Your task to perform on an android device: install app "Pluto TV - Live TV and Movies" Image 0: 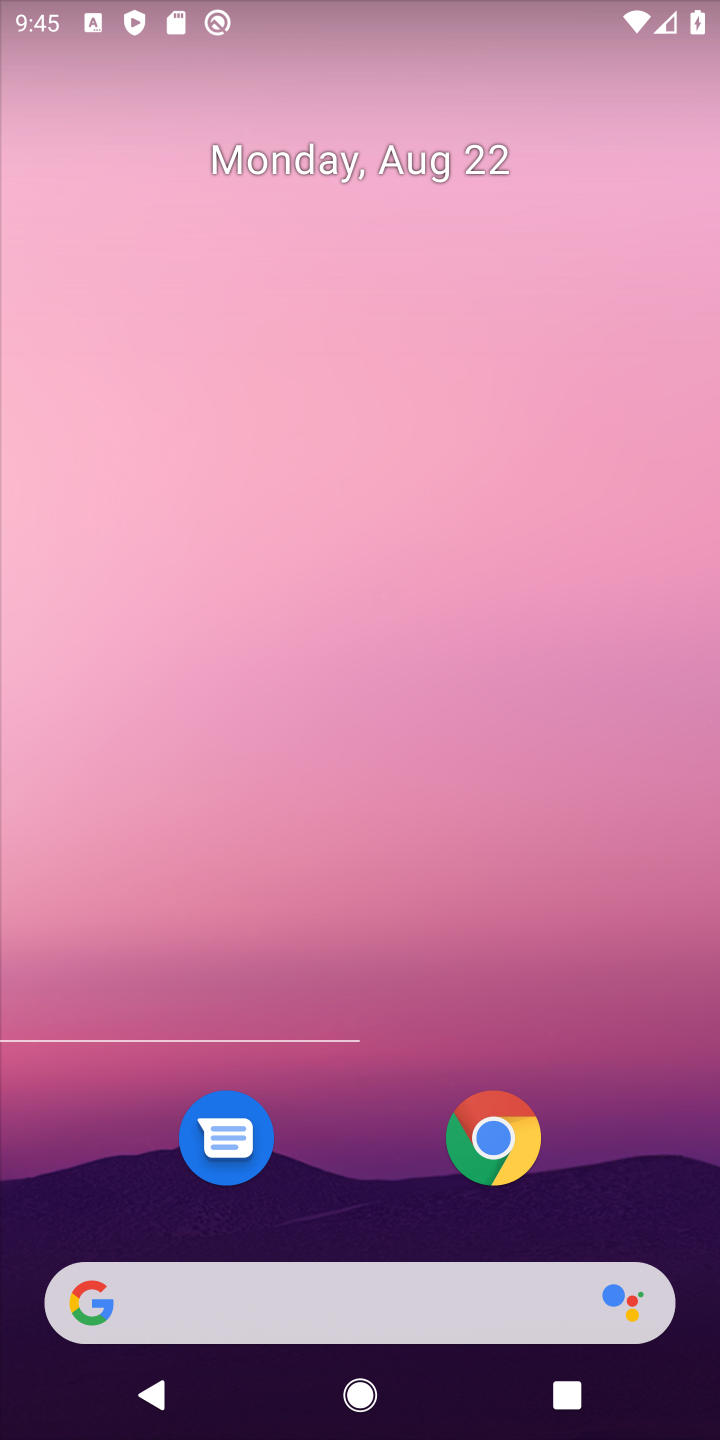
Step 0: press home button
Your task to perform on an android device: install app "Pluto TV - Live TV and Movies" Image 1: 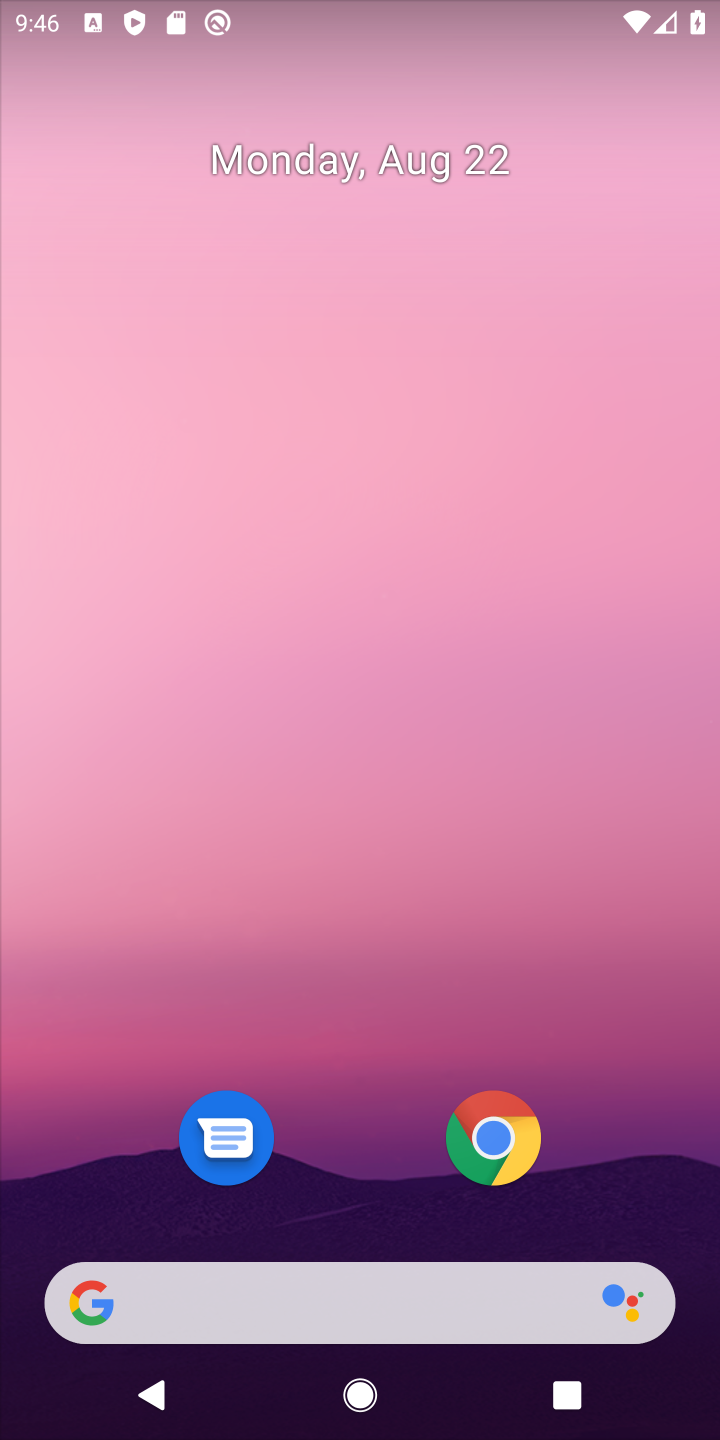
Step 1: drag from (359, 1210) to (391, 94)
Your task to perform on an android device: install app "Pluto TV - Live TV and Movies" Image 2: 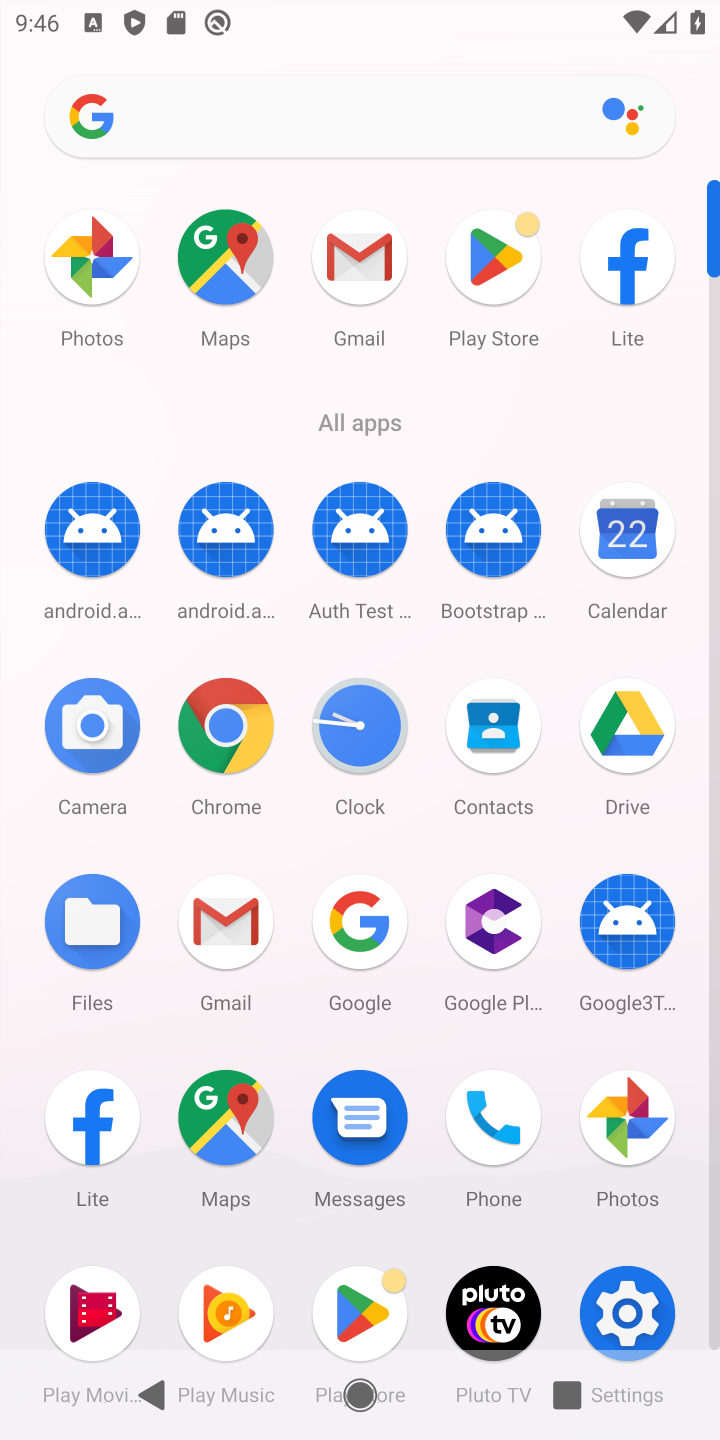
Step 2: click (519, 245)
Your task to perform on an android device: install app "Pluto TV - Live TV and Movies" Image 3: 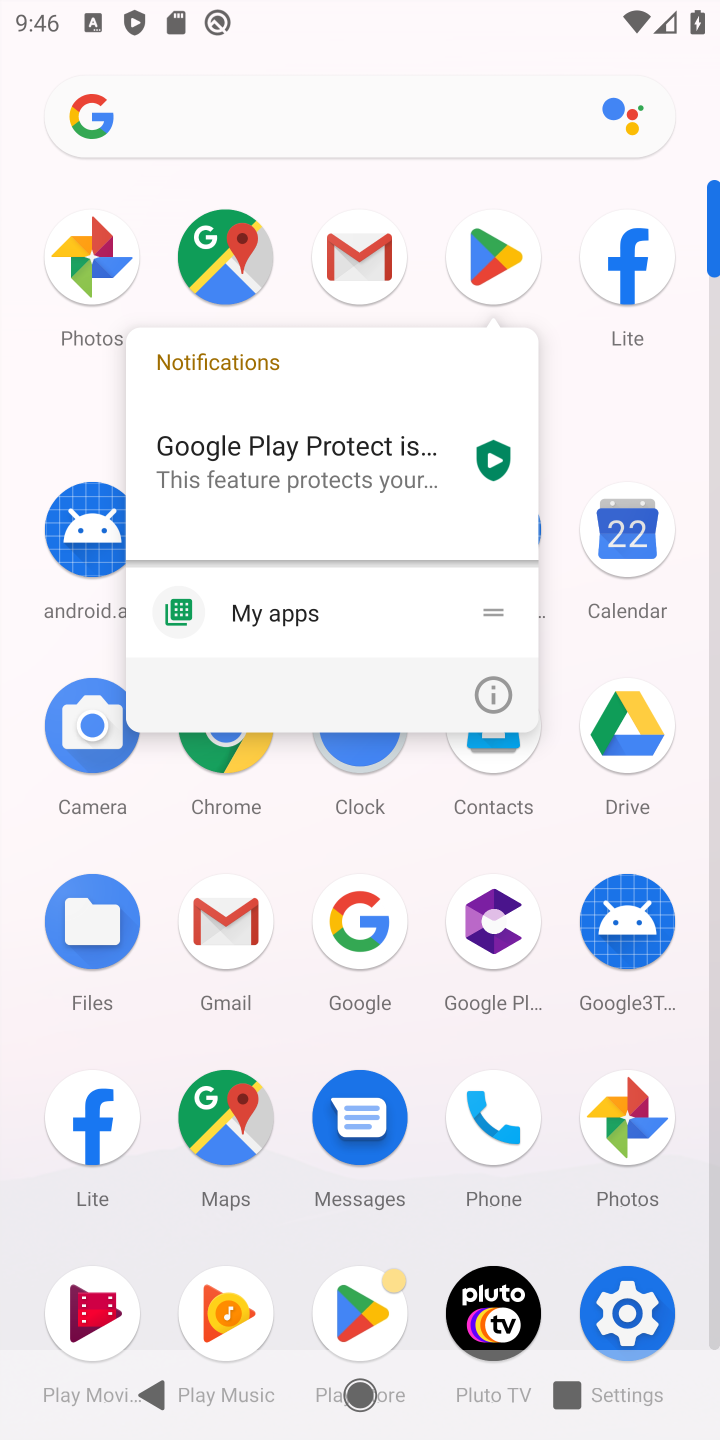
Step 3: click (498, 247)
Your task to perform on an android device: install app "Pluto TV - Live TV and Movies" Image 4: 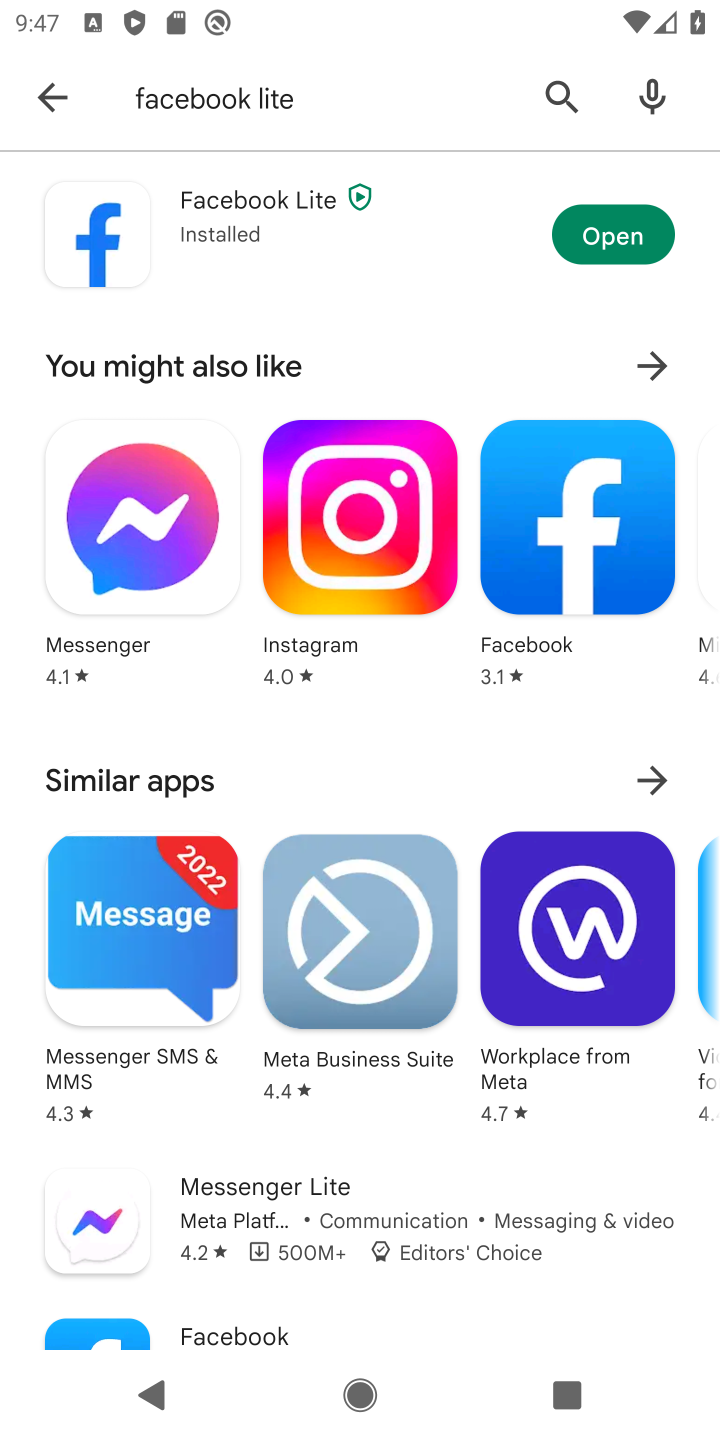
Step 4: click (555, 92)
Your task to perform on an android device: install app "Pluto TV - Live TV and Movies" Image 5: 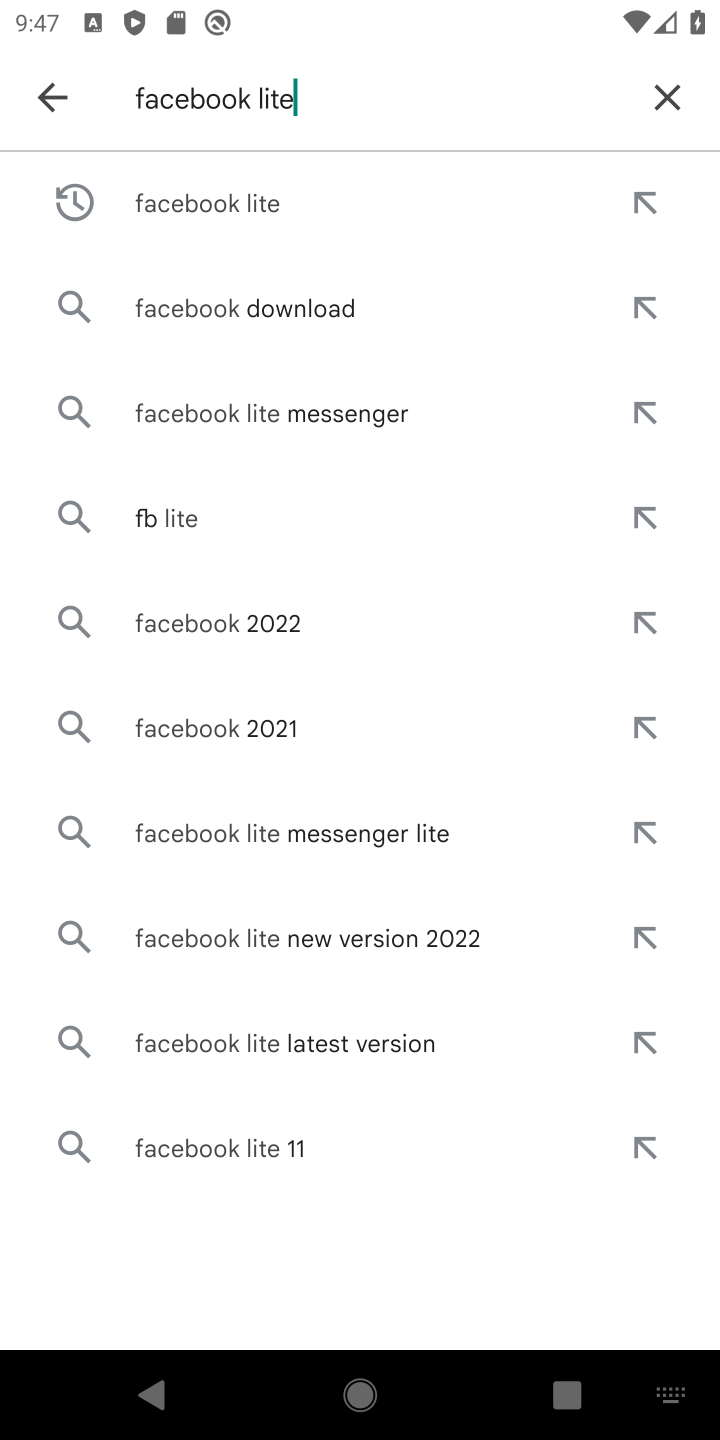
Step 5: click (671, 100)
Your task to perform on an android device: install app "Pluto TV - Live TV and Movies" Image 6: 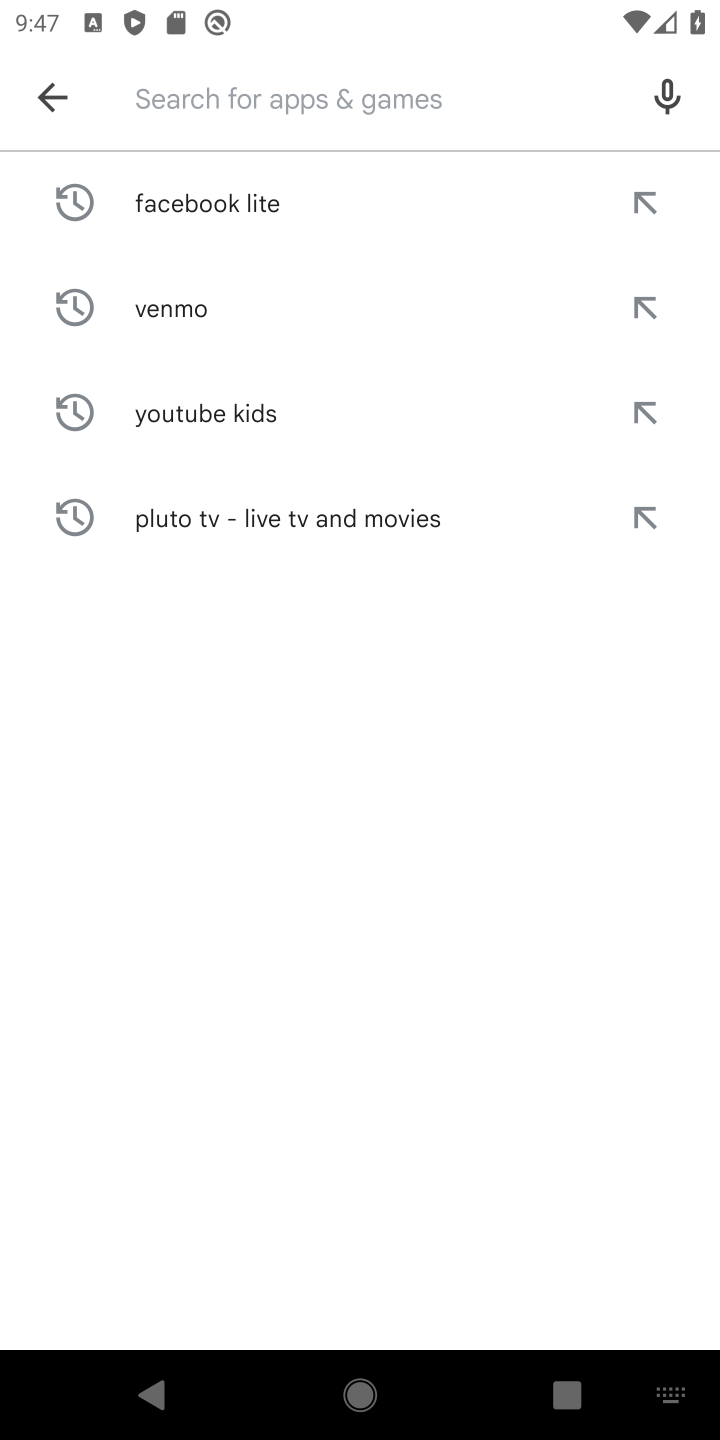
Step 6: type "Pluto TV - Live TV and Movies"
Your task to perform on an android device: install app "Pluto TV - Live TV and Movies" Image 7: 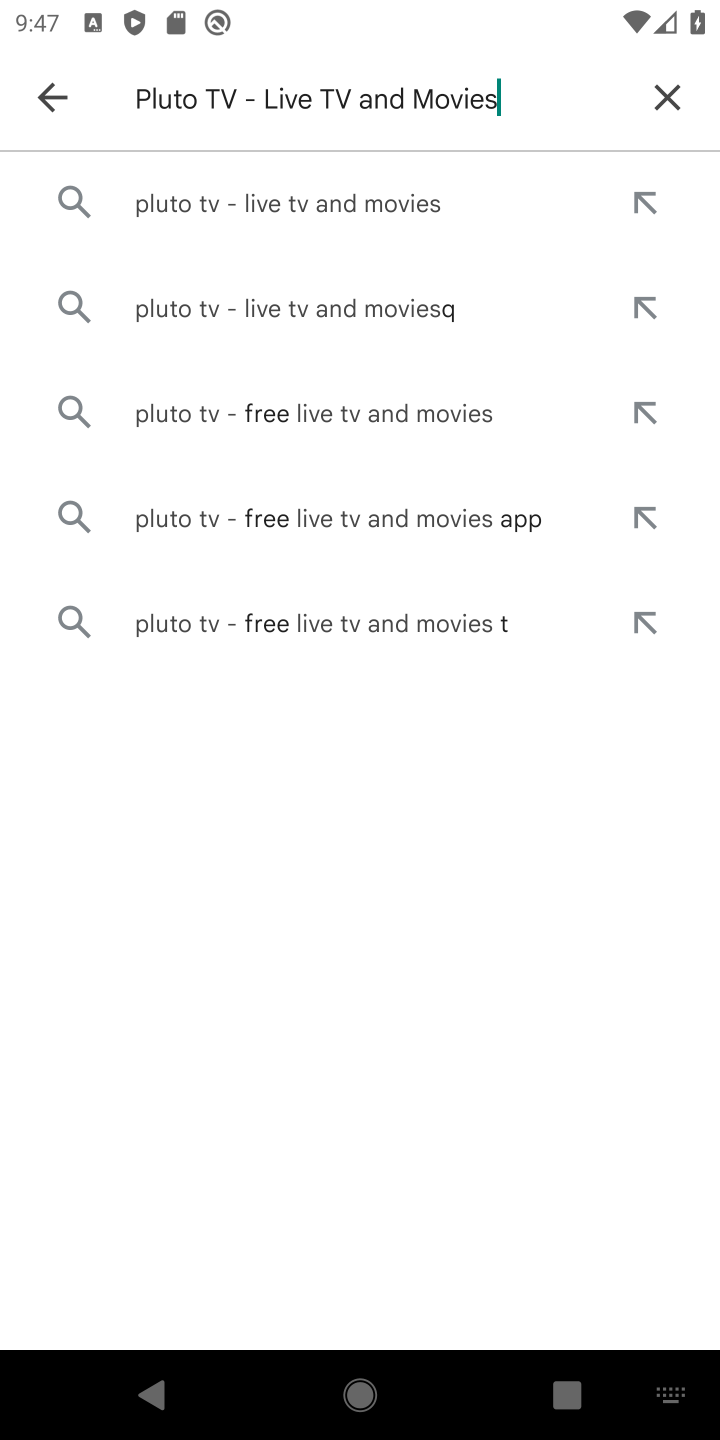
Step 7: click (209, 200)
Your task to perform on an android device: install app "Pluto TV - Live TV and Movies" Image 8: 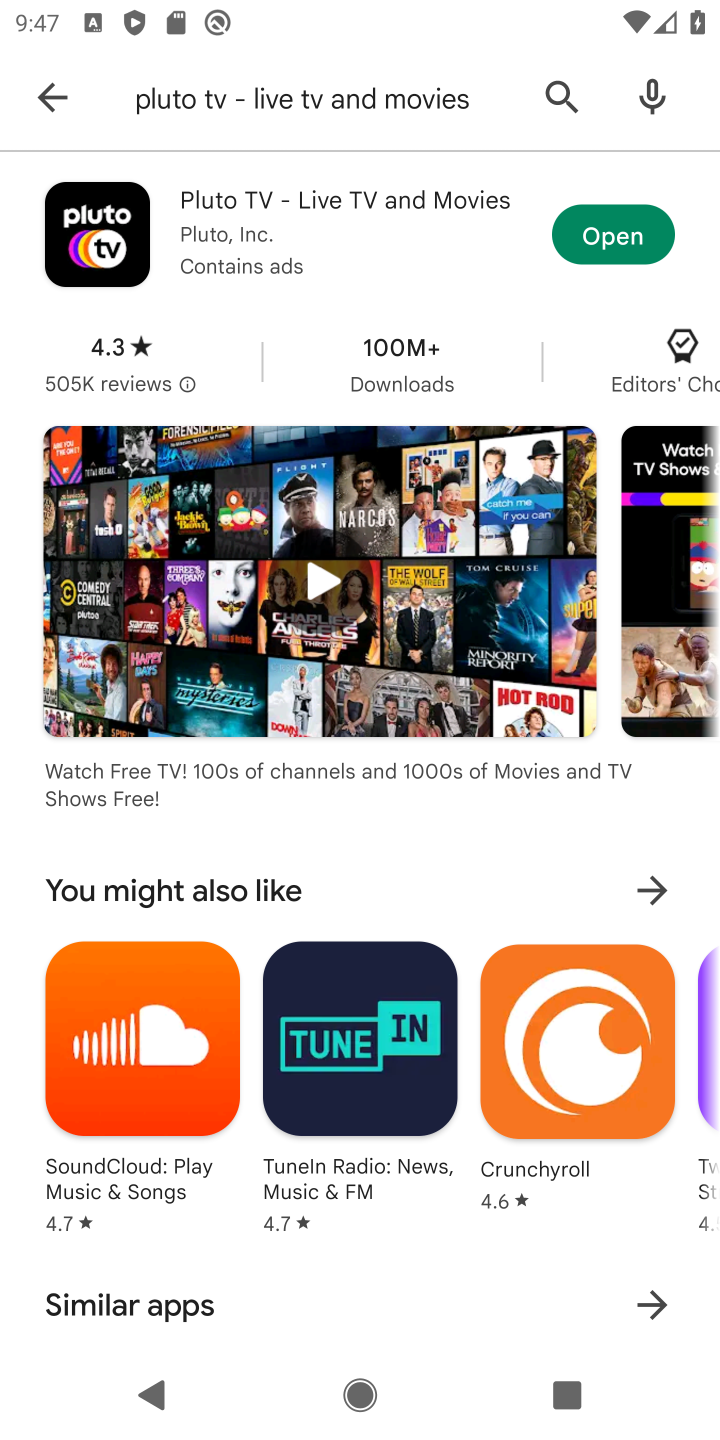
Step 8: click (625, 244)
Your task to perform on an android device: install app "Pluto TV - Live TV and Movies" Image 9: 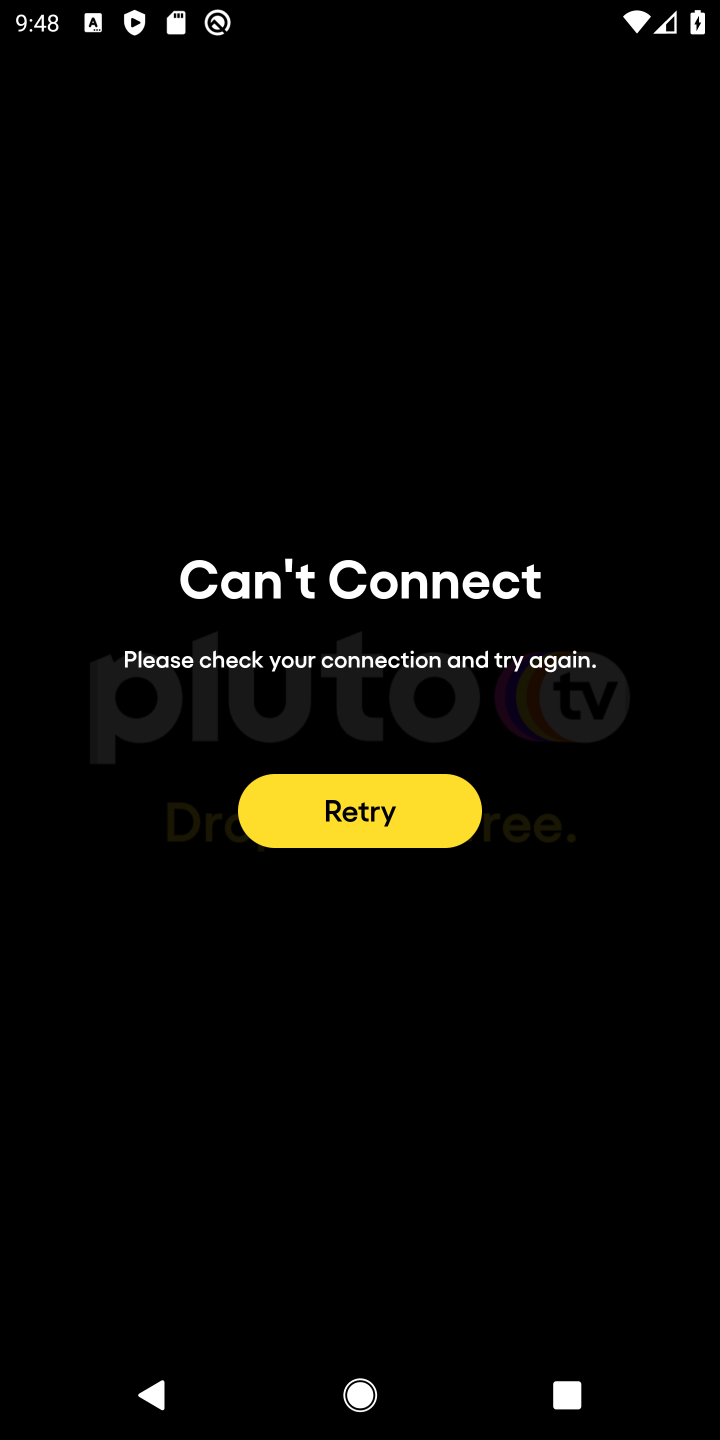
Step 9: task complete